Your task to perform on an android device: check out phone information Image 0: 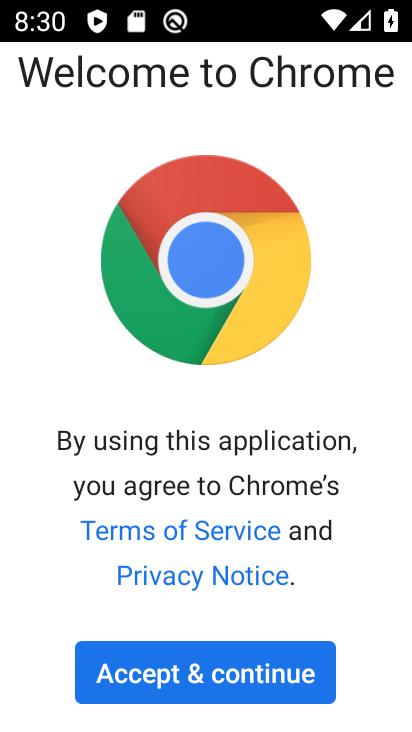
Step 0: press home button
Your task to perform on an android device: check out phone information Image 1: 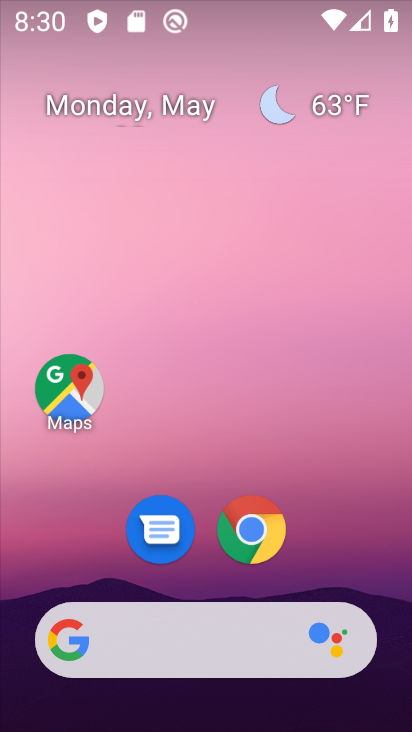
Step 1: drag from (82, 596) to (222, 95)
Your task to perform on an android device: check out phone information Image 2: 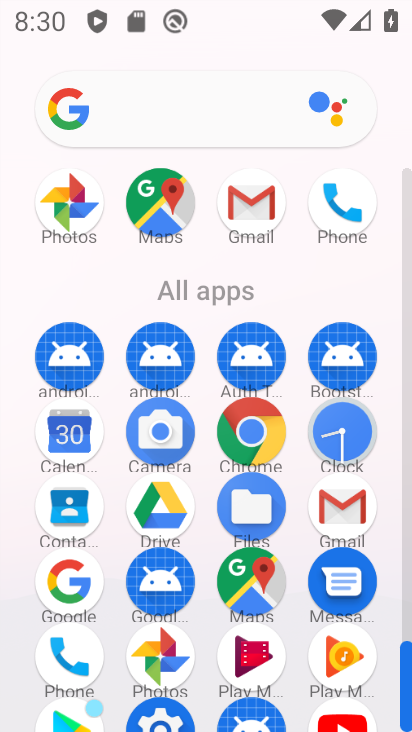
Step 2: drag from (184, 597) to (274, 248)
Your task to perform on an android device: check out phone information Image 3: 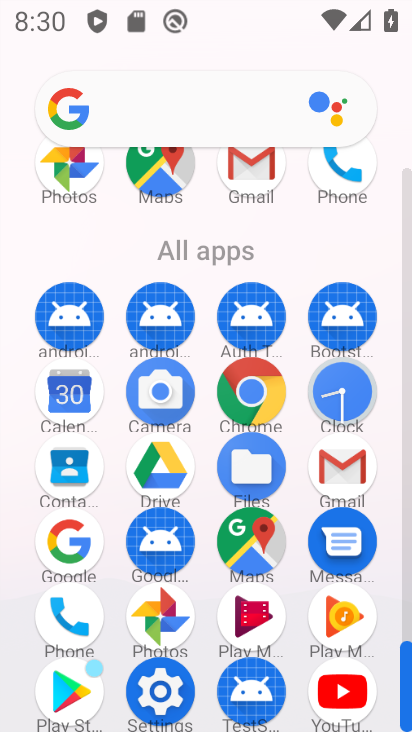
Step 3: click (165, 695)
Your task to perform on an android device: check out phone information Image 4: 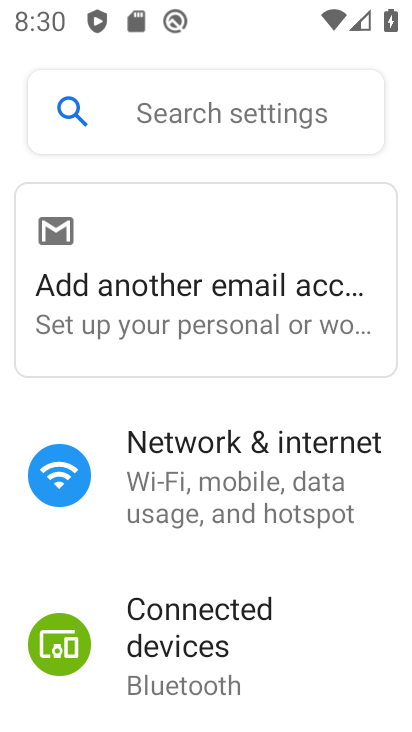
Step 4: drag from (150, 725) to (305, 247)
Your task to perform on an android device: check out phone information Image 5: 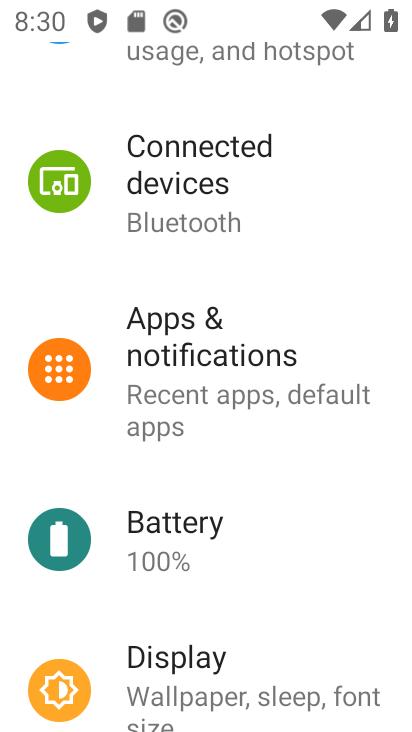
Step 5: drag from (201, 593) to (336, 22)
Your task to perform on an android device: check out phone information Image 6: 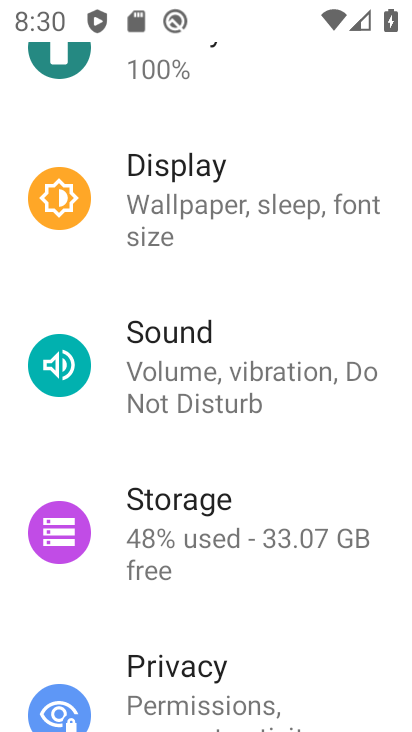
Step 6: drag from (233, 651) to (338, 206)
Your task to perform on an android device: check out phone information Image 7: 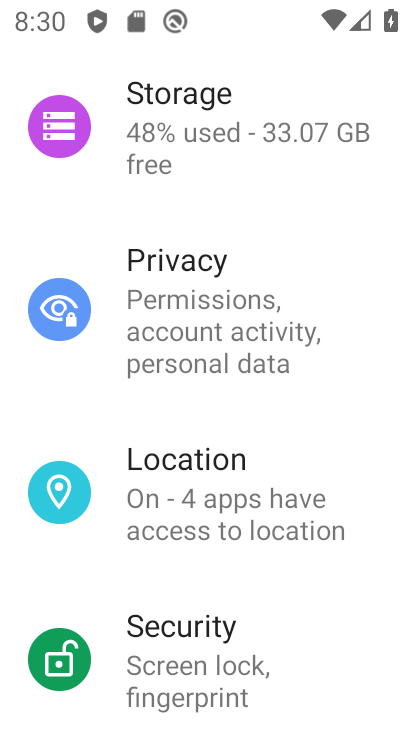
Step 7: drag from (251, 569) to (337, 181)
Your task to perform on an android device: check out phone information Image 8: 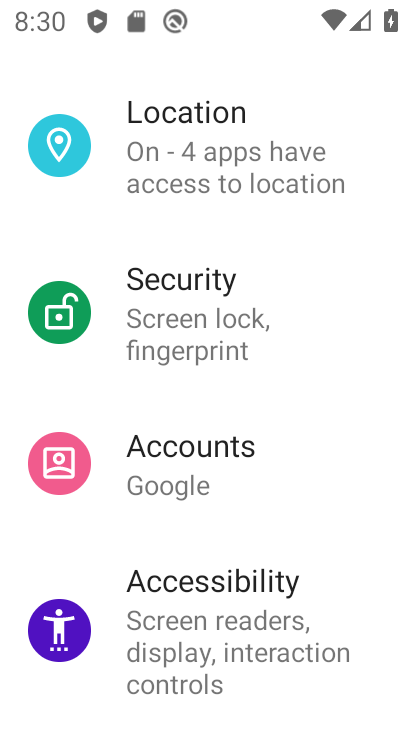
Step 8: drag from (237, 659) to (322, 271)
Your task to perform on an android device: check out phone information Image 9: 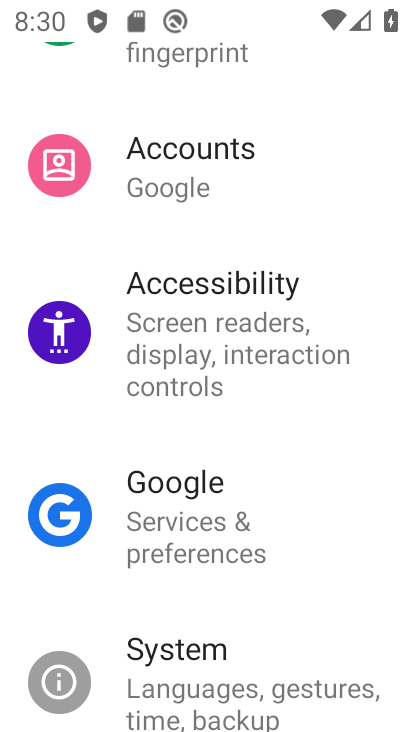
Step 9: drag from (151, 703) to (277, 271)
Your task to perform on an android device: check out phone information Image 10: 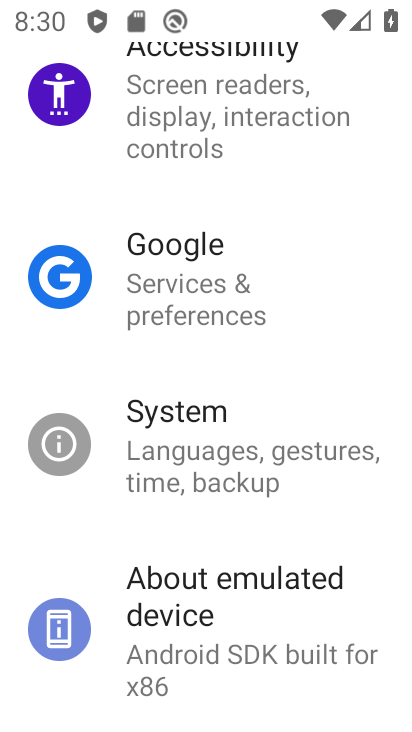
Step 10: drag from (191, 566) to (257, 318)
Your task to perform on an android device: check out phone information Image 11: 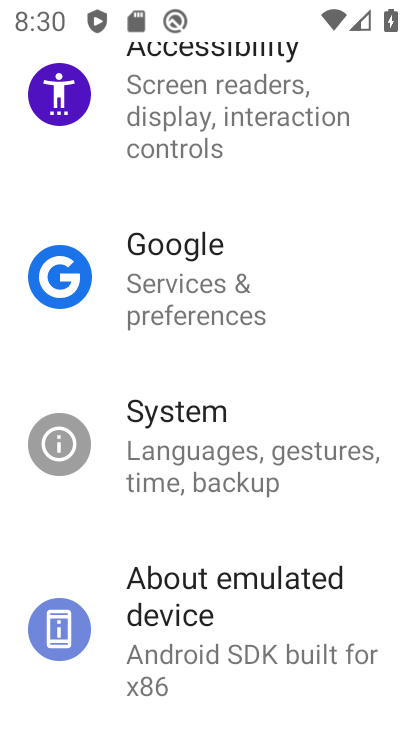
Step 11: click (230, 668)
Your task to perform on an android device: check out phone information Image 12: 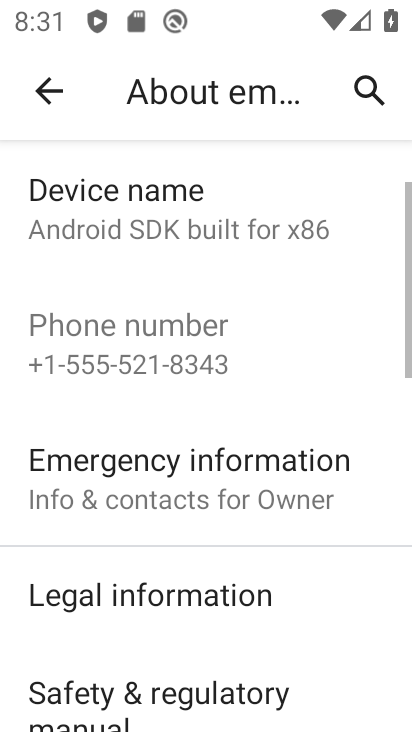
Step 12: task complete